Your task to perform on an android device: delete a single message in the gmail app Image 0: 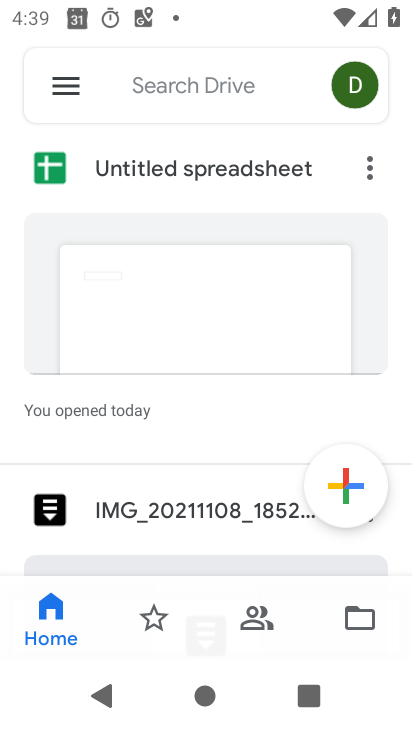
Step 0: press back button
Your task to perform on an android device: delete a single message in the gmail app Image 1: 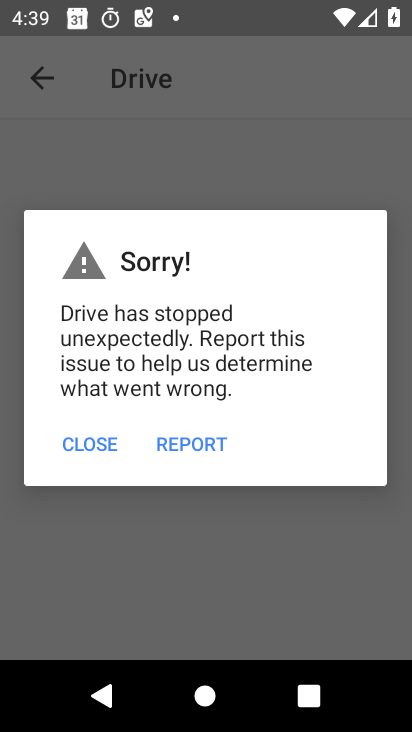
Step 1: press home button
Your task to perform on an android device: delete a single message in the gmail app Image 2: 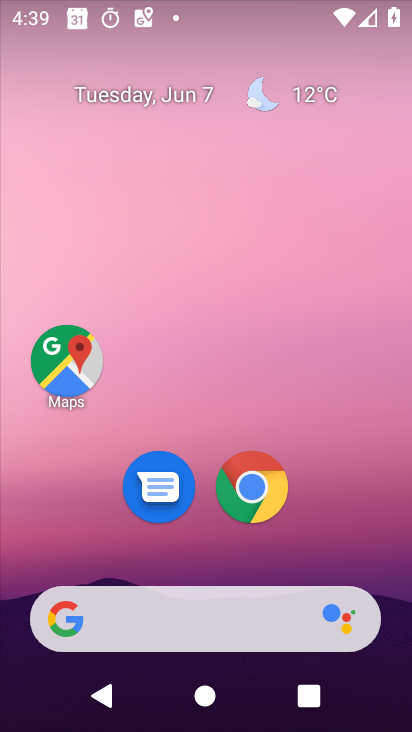
Step 2: drag from (167, 573) to (301, 40)
Your task to perform on an android device: delete a single message in the gmail app Image 3: 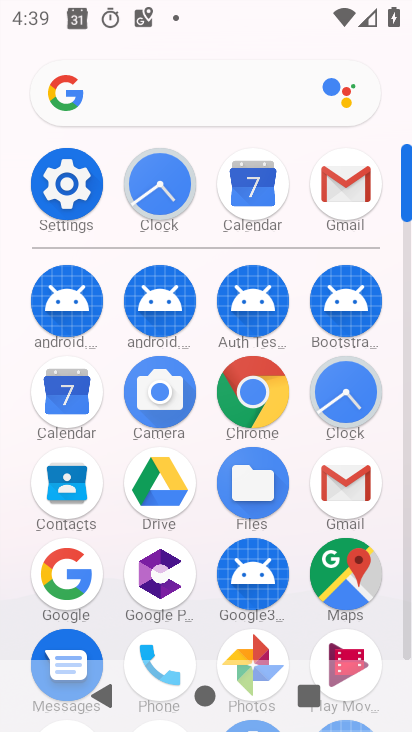
Step 3: click (361, 186)
Your task to perform on an android device: delete a single message in the gmail app Image 4: 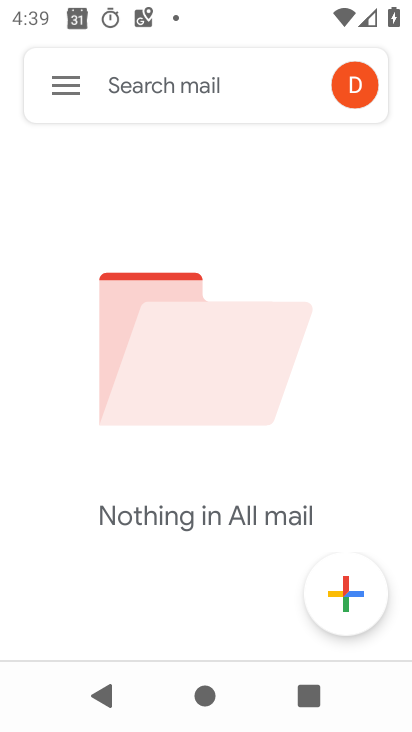
Step 4: click (59, 88)
Your task to perform on an android device: delete a single message in the gmail app Image 5: 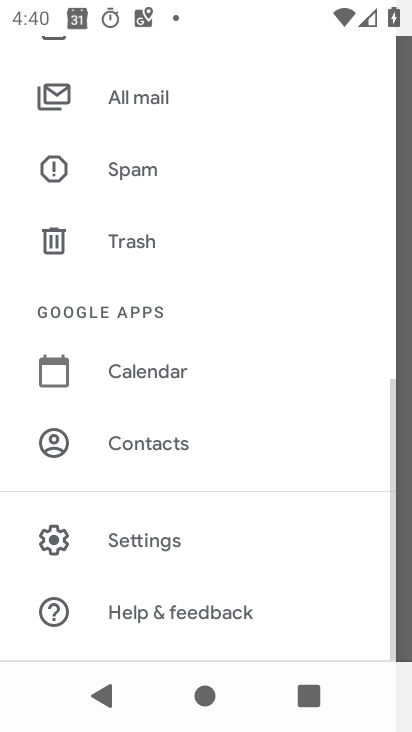
Step 5: task complete